Your task to perform on an android device: move a message to another label in the gmail app Image 0: 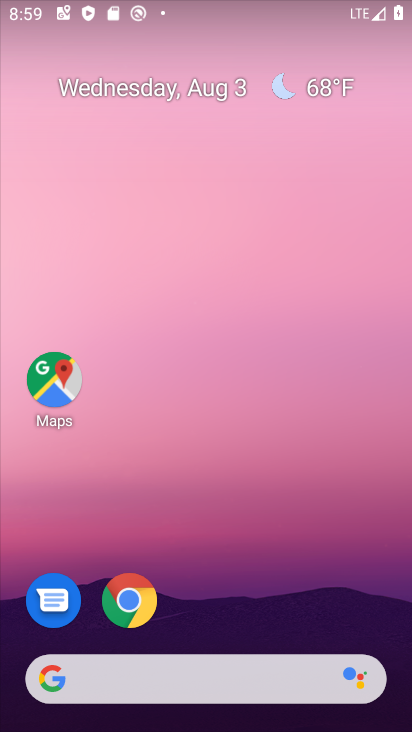
Step 0: drag from (199, 645) to (230, 45)
Your task to perform on an android device: move a message to another label in the gmail app Image 1: 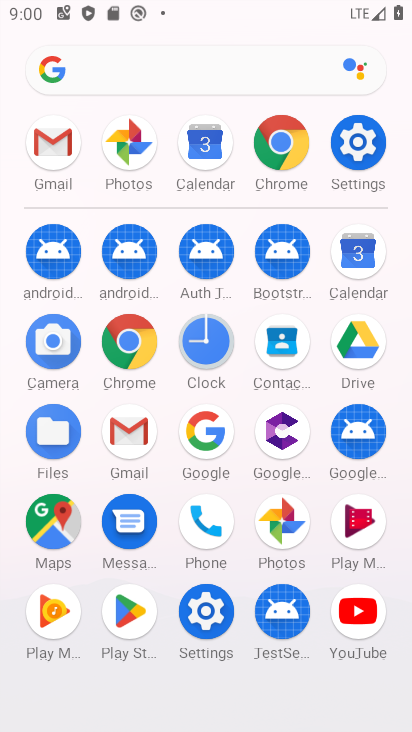
Step 1: click (142, 438)
Your task to perform on an android device: move a message to another label in the gmail app Image 2: 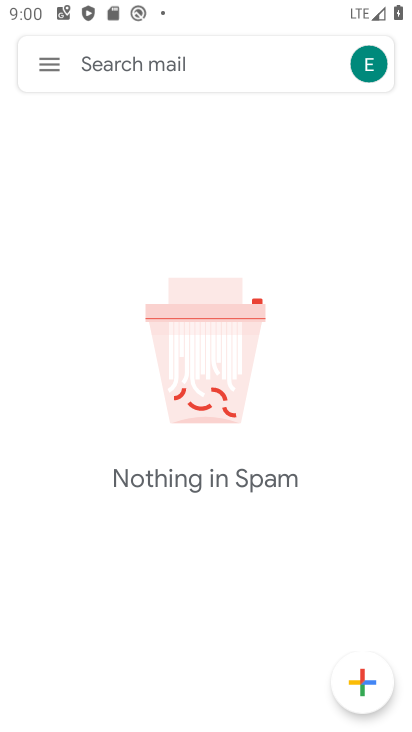
Step 2: click (49, 64)
Your task to perform on an android device: move a message to another label in the gmail app Image 3: 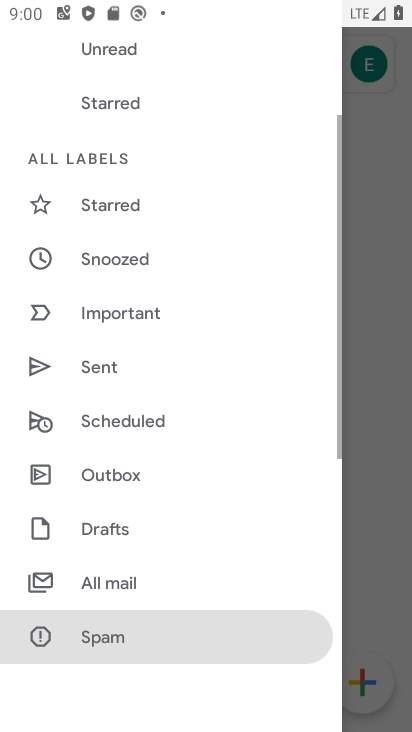
Step 3: drag from (107, 83) to (85, 662)
Your task to perform on an android device: move a message to another label in the gmail app Image 4: 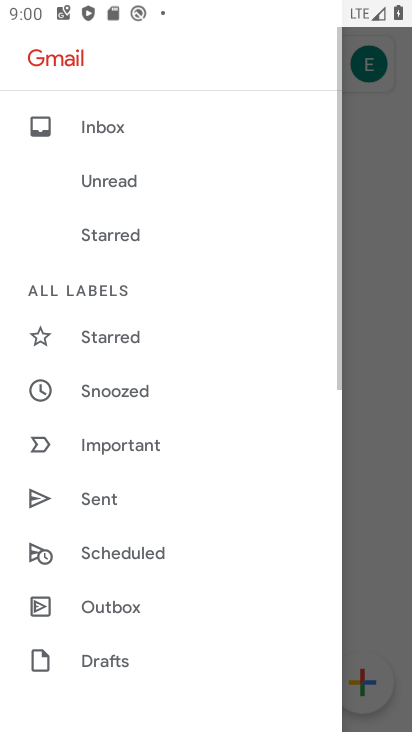
Step 4: click (116, 130)
Your task to perform on an android device: move a message to another label in the gmail app Image 5: 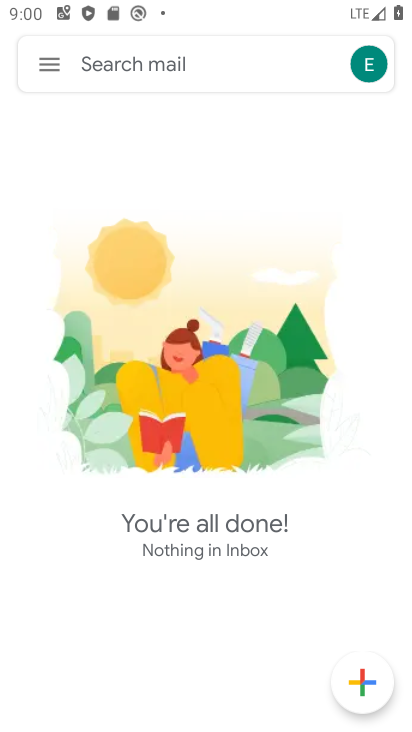
Step 5: task complete